Your task to perform on an android device: allow notifications from all sites in the chrome app Image 0: 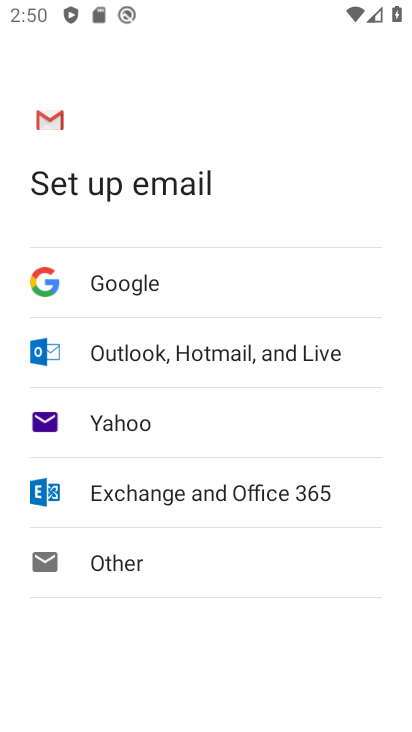
Step 0: press home button
Your task to perform on an android device: allow notifications from all sites in the chrome app Image 1: 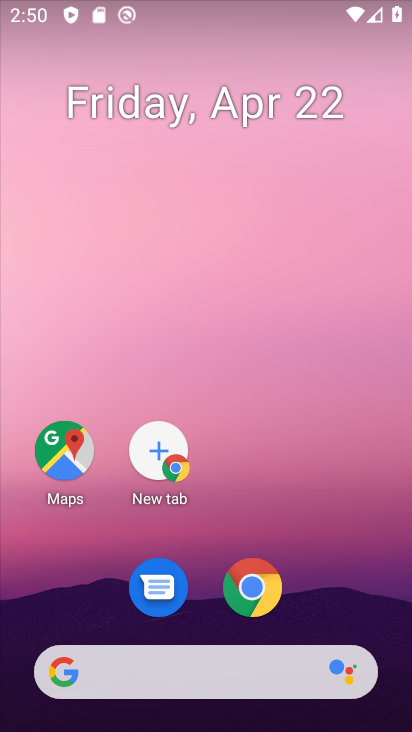
Step 1: drag from (206, 580) to (195, 173)
Your task to perform on an android device: allow notifications from all sites in the chrome app Image 2: 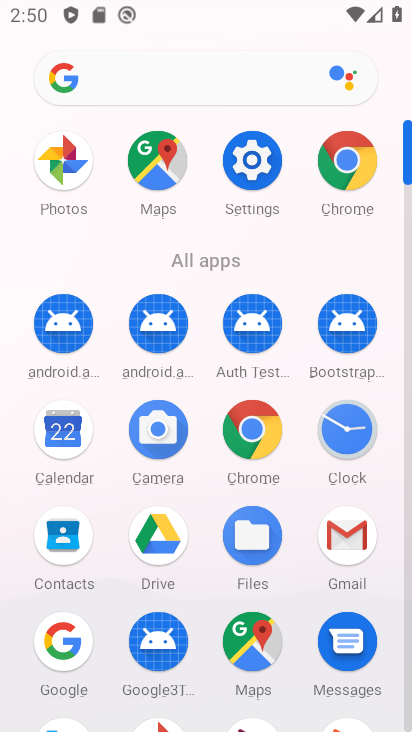
Step 2: click (247, 152)
Your task to perform on an android device: allow notifications from all sites in the chrome app Image 3: 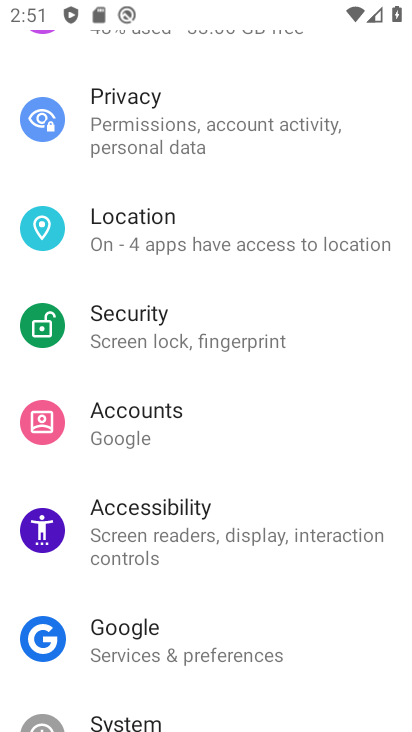
Step 3: drag from (177, 644) to (204, 459)
Your task to perform on an android device: allow notifications from all sites in the chrome app Image 4: 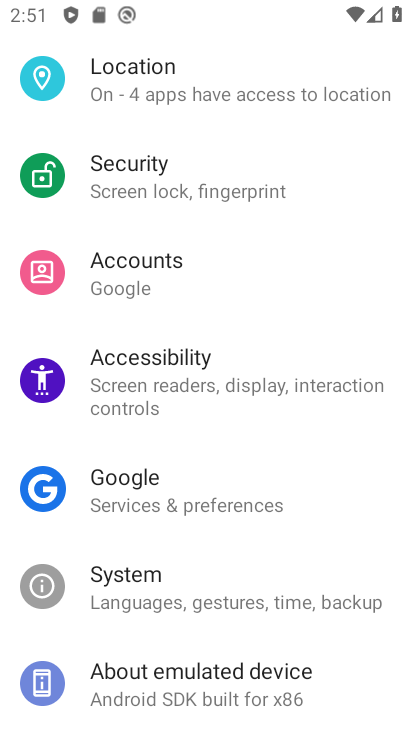
Step 4: drag from (234, 165) to (257, 700)
Your task to perform on an android device: allow notifications from all sites in the chrome app Image 5: 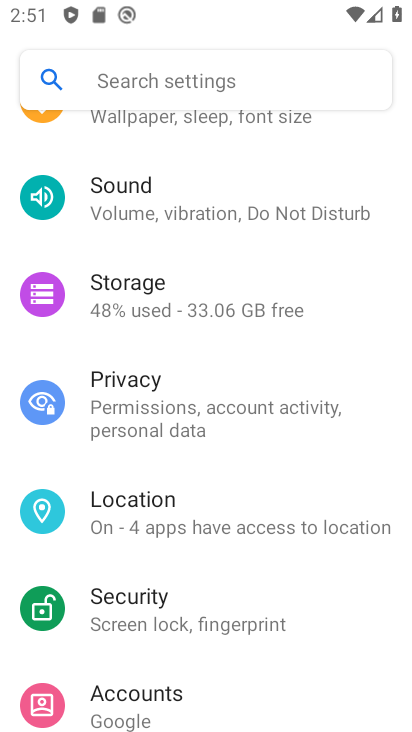
Step 5: drag from (250, 198) to (247, 675)
Your task to perform on an android device: allow notifications from all sites in the chrome app Image 6: 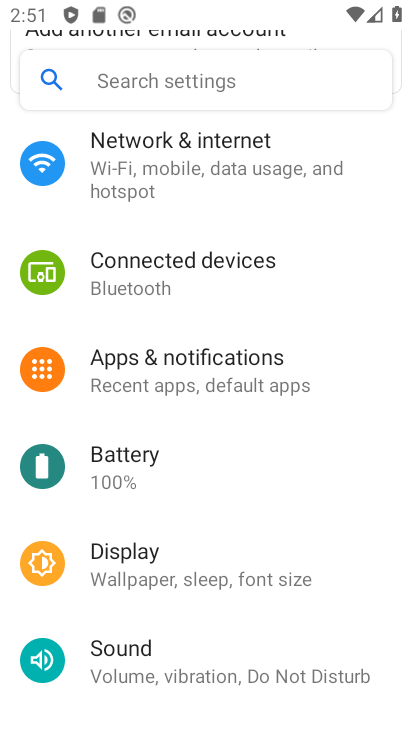
Step 6: drag from (237, 203) to (241, 486)
Your task to perform on an android device: allow notifications from all sites in the chrome app Image 7: 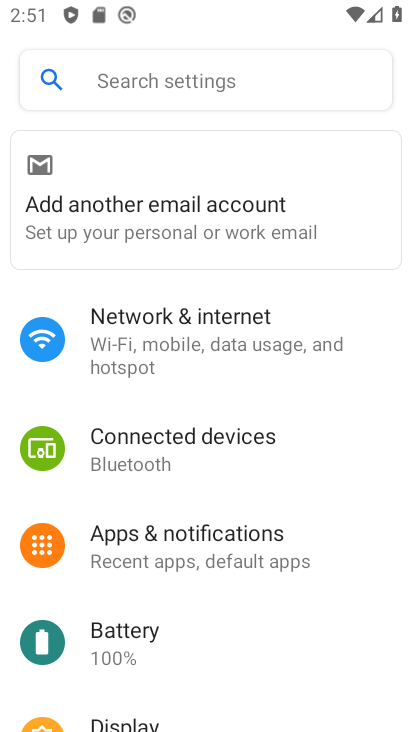
Step 7: click (180, 557)
Your task to perform on an android device: allow notifications from all sites in the chrome app Image 8: 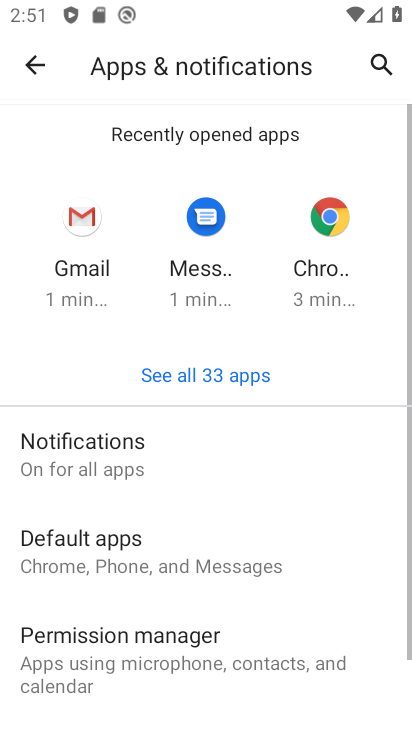
Step 8: drag from (180, 557) to (184, 213)
Your task to perform on an android device: allow notifications from all sites in the chrome app Image 9: 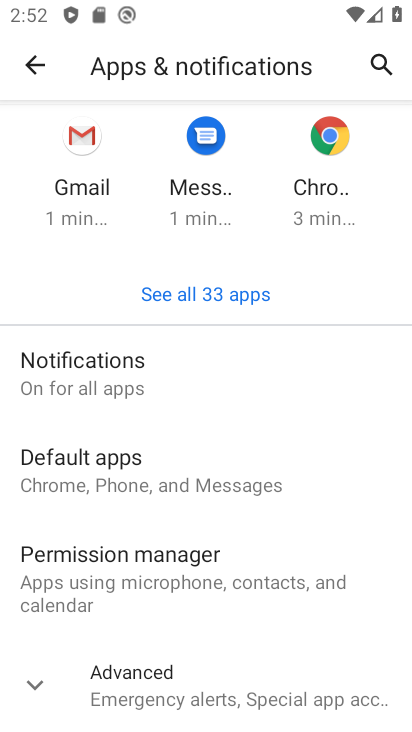
Step 9: click (160, 377)
Your task to perform on an android device: allow notifications from all sites in the chrome app Image 10: 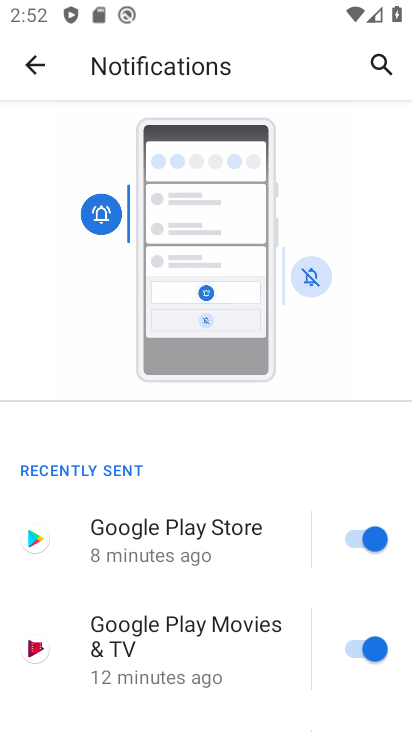
Step 10: click (41, 55)
Your task to perform on an android device: allow notifications from all sites in the chrome app Image 11: 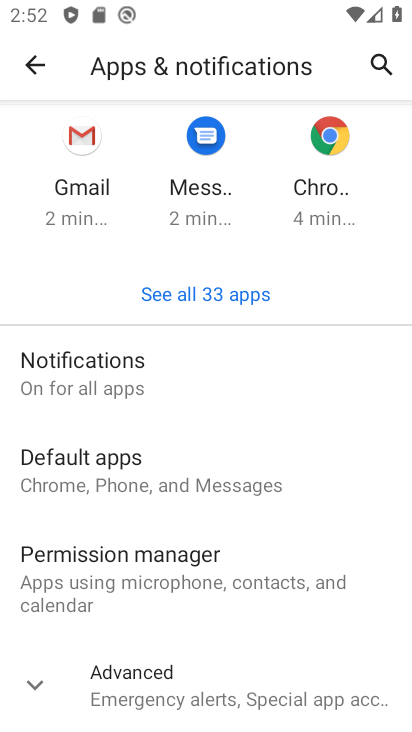
Step 11: click (337, 131)
Your task to perform on an android device: allow notifications from all sites in the chrome app Image 12: 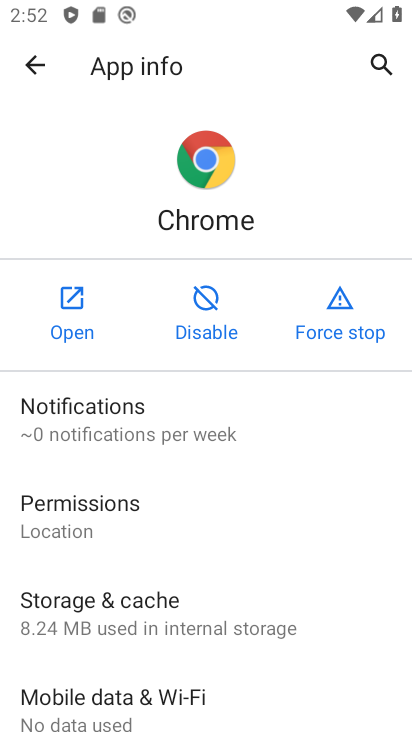
Step 12: drag from (121, 588) to (166, 166)
Your task to perform on an android device: allow notifications from all sites in the chrome app Image 13: 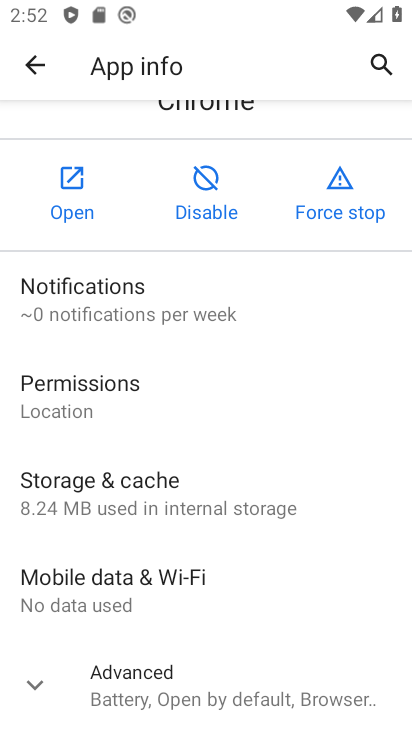
Step 13: click (155, 691)
Your task to perform on an android device: allow notifications from all sites in the chrome app Image 14: 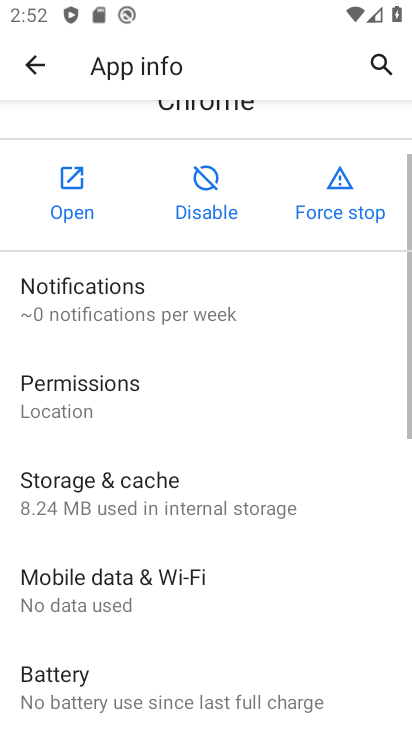
Step 14: drag from (155, 691) to (241, 282)
Your task to perform on an android device: allow notifications from all sites in the chrome app Image 15: 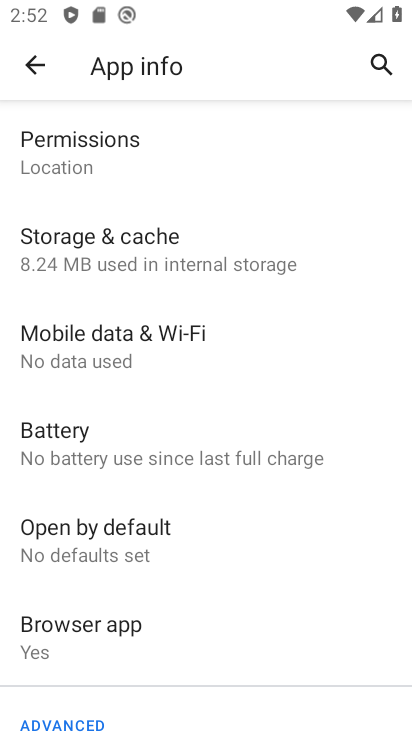
Step 15: drag from (118, 696) to (173, 182)
Your task to perform on an android device: allow notifications from all sites in the chrome app Image 16: 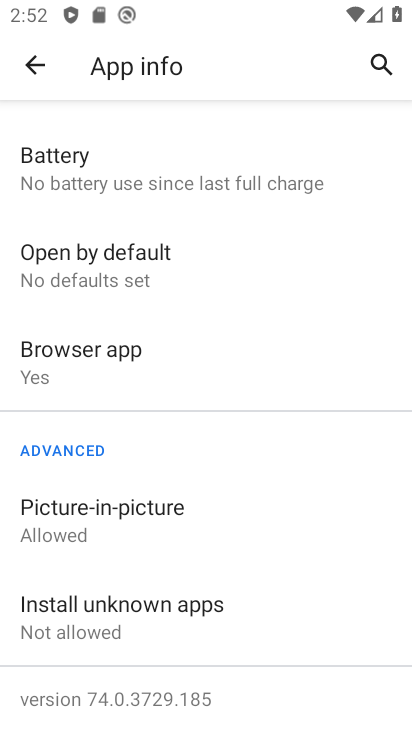
Step 16: drag from (189, 186) to (188, 726)
Your task to perform on an android device: allow notifications from all sites in the chrome app Image 17: 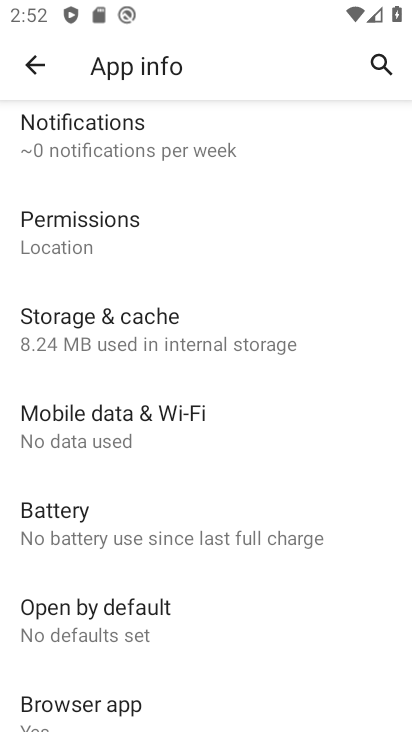
Step 17: drag from (242, 382) to (255, 539)
Your task to perform on an android device: allow notifications from all sites in the chrome app Image 18: 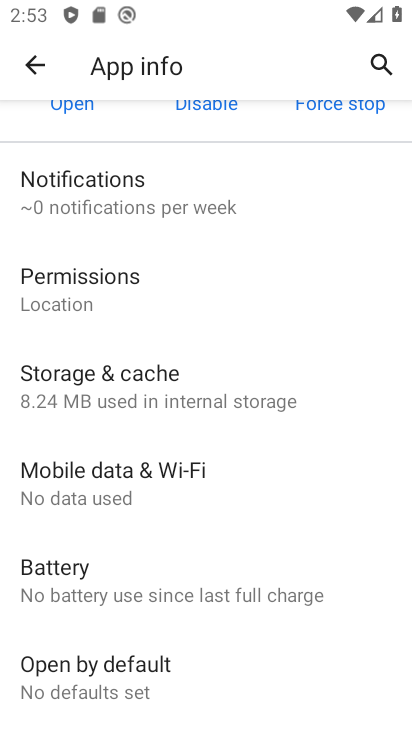
Step 18: drag from (130, 593) to (214, 235)
Your task to perform on an android device: allow notifications from all sites in the chrome app Image 19: 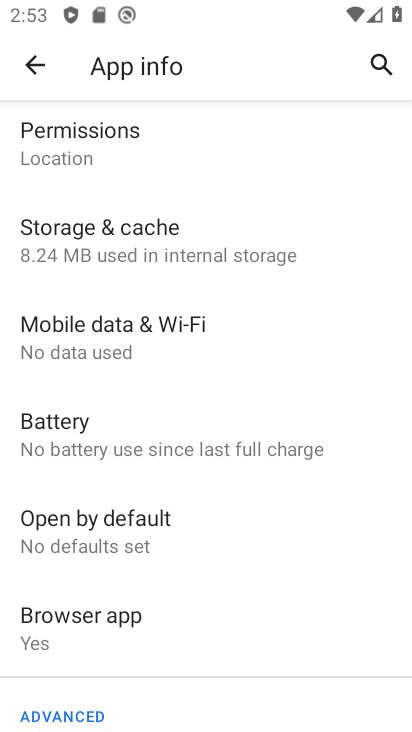
Step 19: drag from (192, 659) to (213, 345)
Your task to perform on an android device: allow notifications from all sites in the chrome app Image 20: 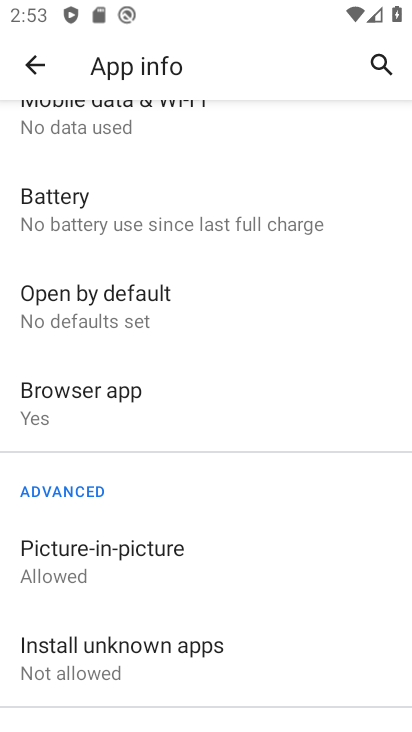
Step 20: drag from (195, 605) to (174, 20)
Your task to perform on an android device: allow notifications from all sites in the chrome app Image 21: 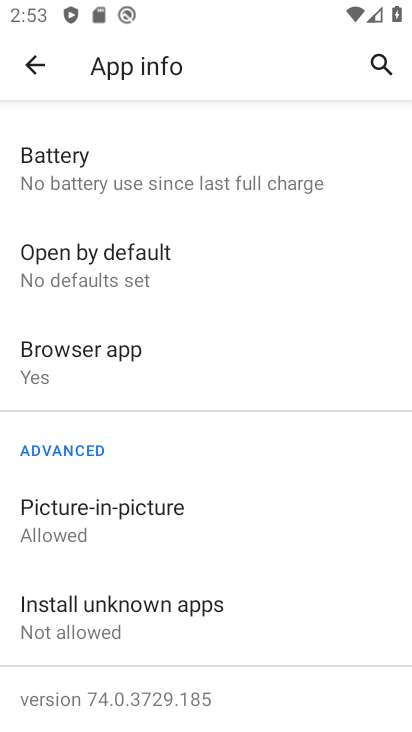
Step 21: drag from (125, 605) to (156, 340)
Your task to perform on an android device: allow notifications from all sites in the chrome app Image 22: 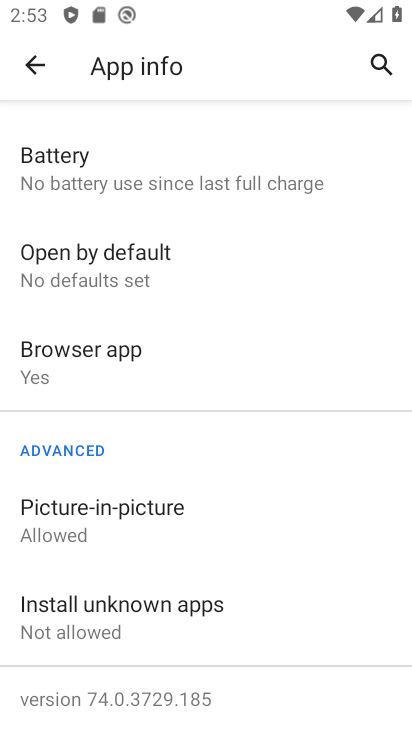
Step 22: drag from (152, 201) to (159, 632)
Your task to perform on an android device: allow notifications from all sites in the chrome app Image 23: 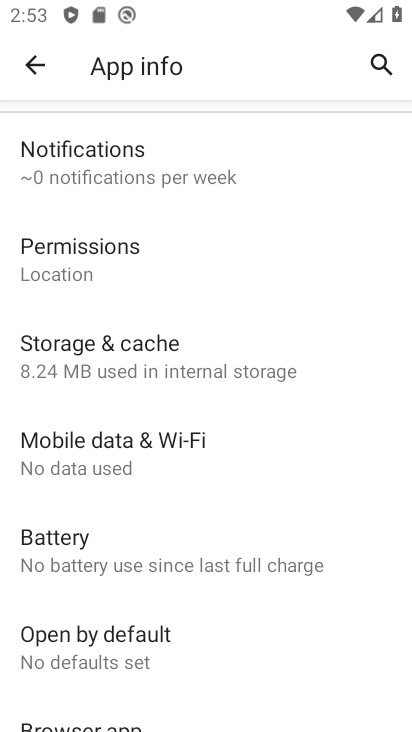
Step 23: drag from (210, 248) to (245, 621)
Your task to perform on an android device: allow notifications from all sites in the chrome app Image 24: 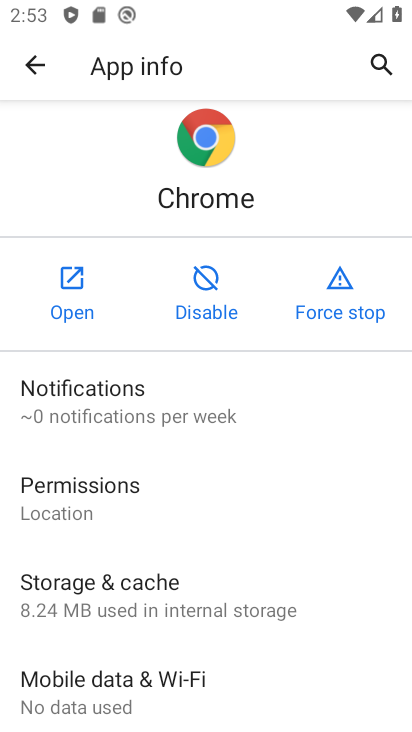
Step 24: drag from (169, 615) to (195, 281)
Your task to perform on an android device: allow notifications from all sites in the chrome app Image 25: 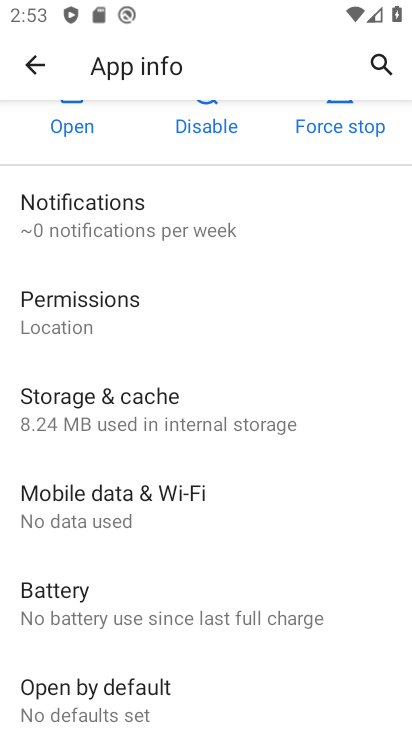
Step 25: click (154, 210)
Your task to perform on an android device: allow notifications from all sites in the chrome app Image 26: 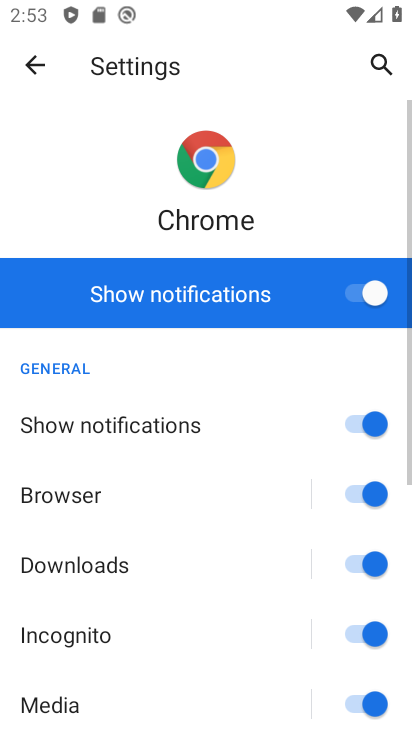
Step 26: task complete